Your task to perform on an android device: set the timer Image 0: 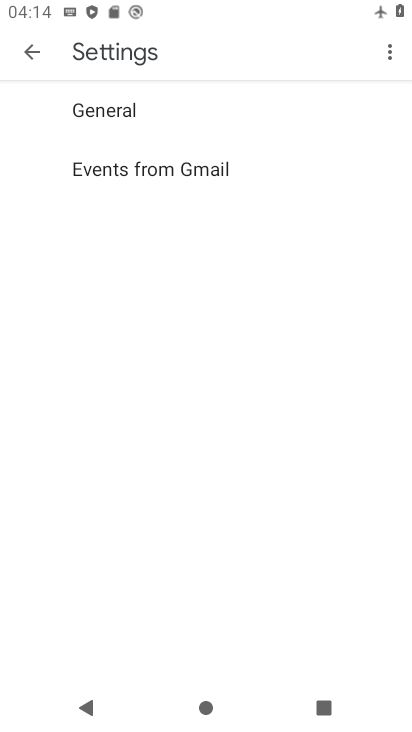
Step 0: press back button
Your task to perform on an android device: set the timer Image 1: 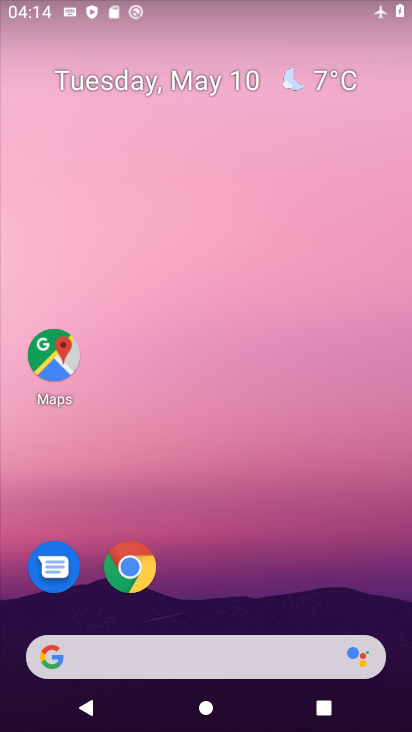
Step 1: drag from (242, 532) to (192, 67)
Your task to perform on an android device: set the timer Image 2: 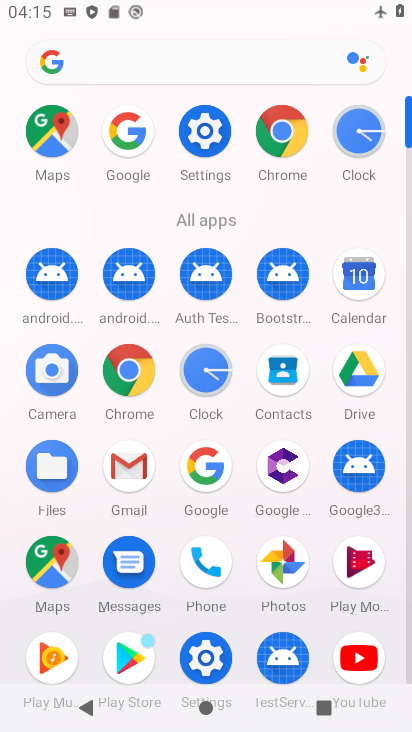
Step 2: click (205, 371)
Your task to perform on an android device: set the timer Image 3: 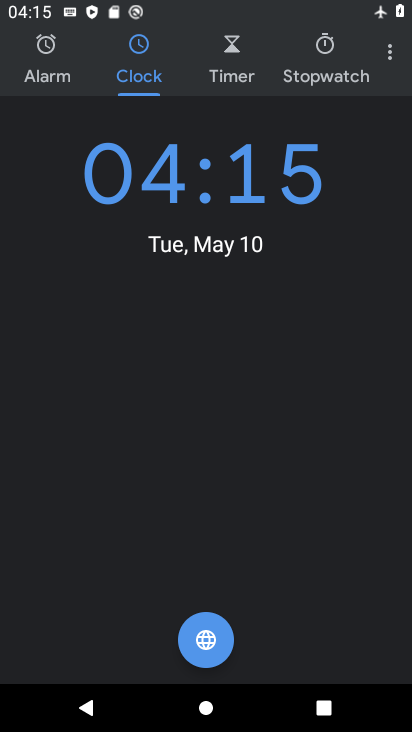
Step 3: click (228, 59)
Your task to perform on an android device: set the timer Image 4: 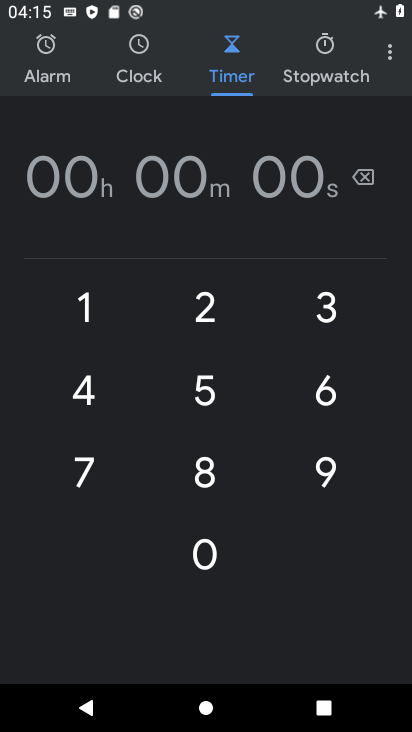
Step 4: click (92, 297)
Your task to perform on an android device: set the timer Image 5: 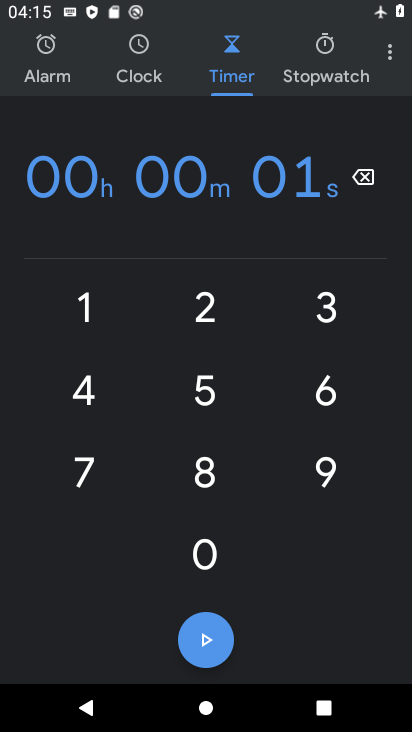
Step 5: click (210, 311)
Your task to perform on an android device: set the timer Image 6: 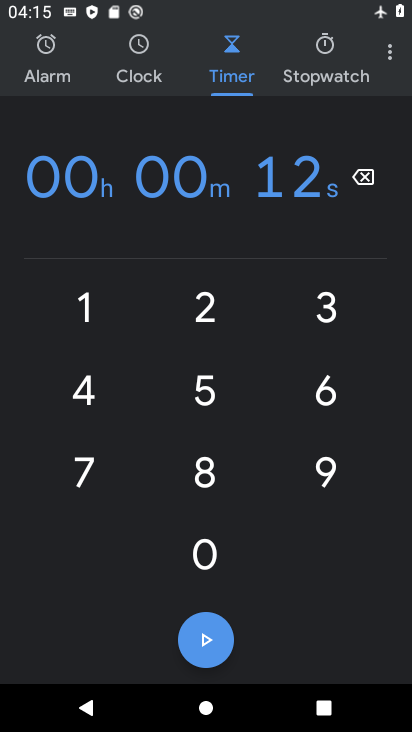
Step 6: click (323, 291)
Your task to perform on an android device: set the timer Image 7: 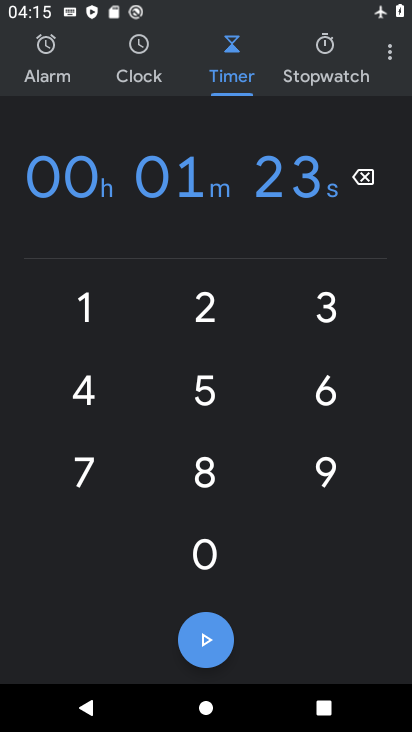
Step 7: click (213, 645)
Your task to perform on an android device: set the timer Image 8: 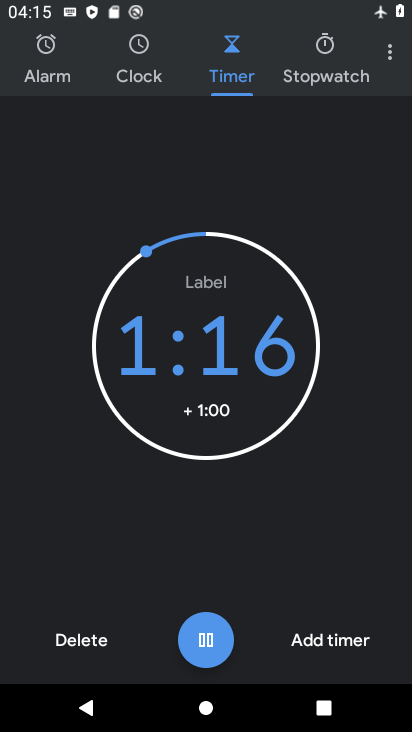
Step 8: click (208, 630)
Your task to perform on an android device: set the timer Image 9: 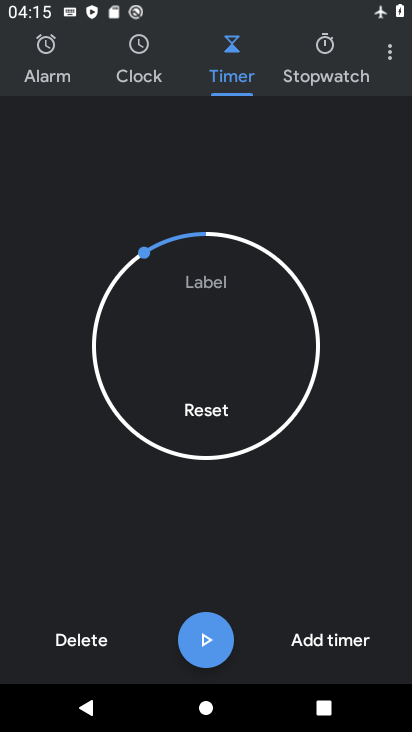
Step 9: task complete